Your task to perform on an android device: delete browsing data in the chrome app Image 0: 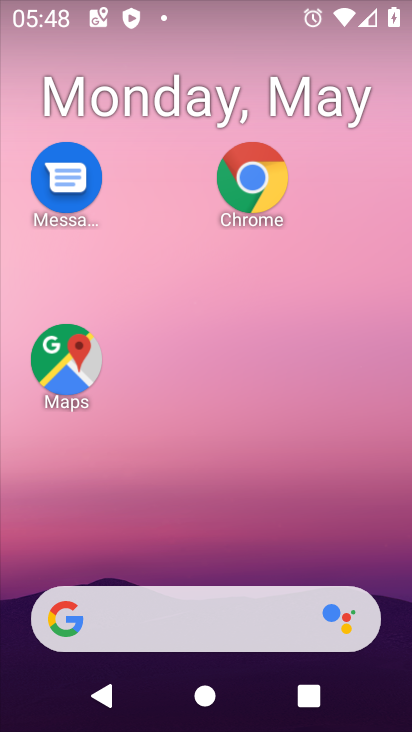
Step 0: drag from (195, 537) to (137, 29)
Your task to perform on an android device: delete browsing data in the chrome app Image 1: 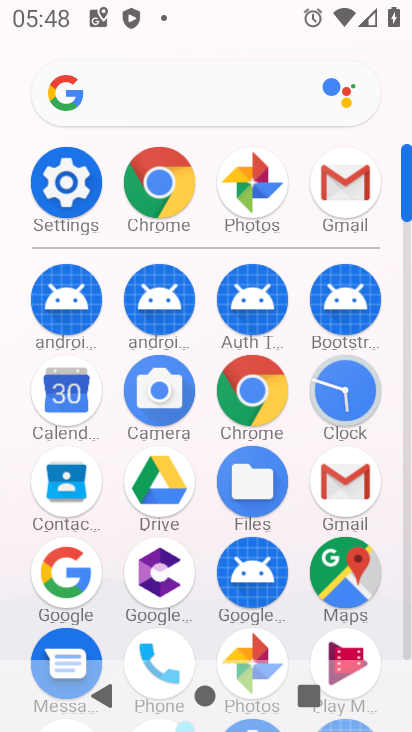
Step 1: click (156, 182)
Your task to perform on an android device: delete browsing data in the chrome app Image 2: 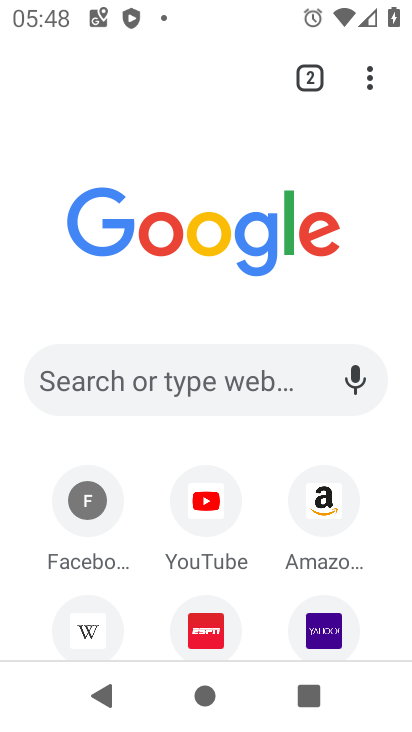
Step 2: click (366, 78)
Your task to perform on an android device: delete browsing data in the chrome app Image 3: 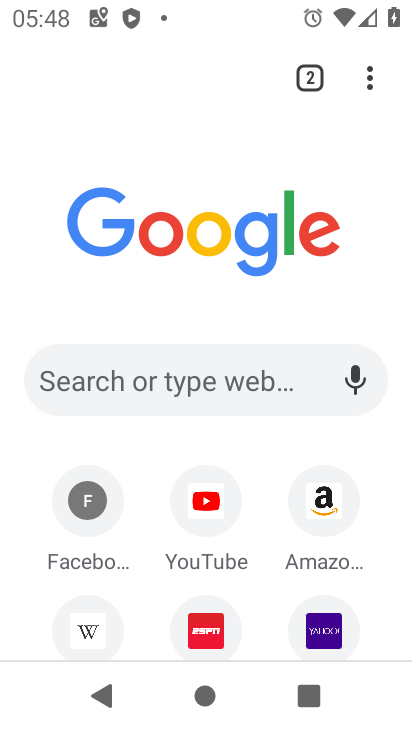
Step 3: click (366, 81)
Your task to perform on an android device: delete browsing data in the chrome app Image 4: 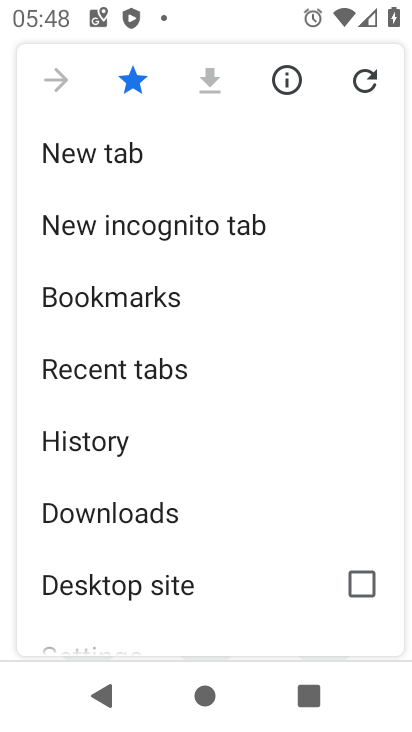
Step 4: click (114, 450)
Your task to perform on an android device: delete browsing data in the chrome app Image 5: 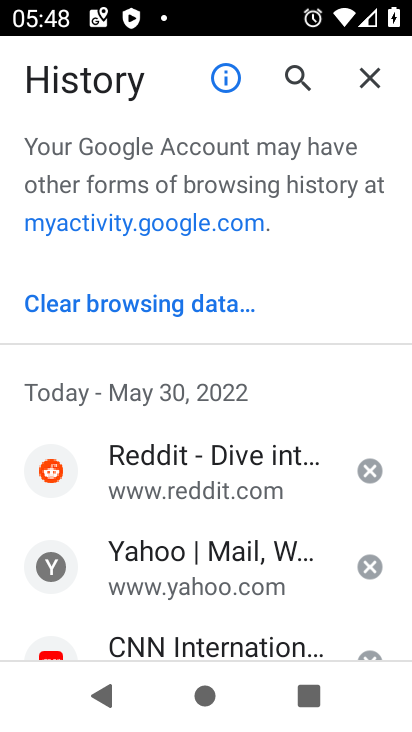
Step 5: click (99, 304)
Your task to perform on an android device: delete browsing data in the chrome app Image 6: 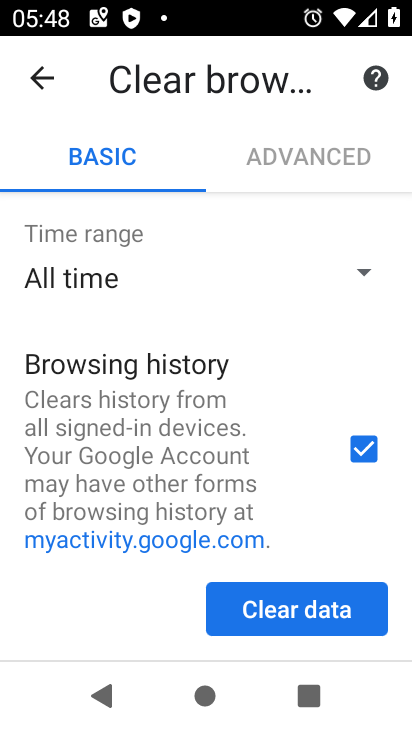
Step 6: drag from (286, 506) to (221, 224)
Your task to perform on an android device: delete browsing data in the chrome app Image 7: 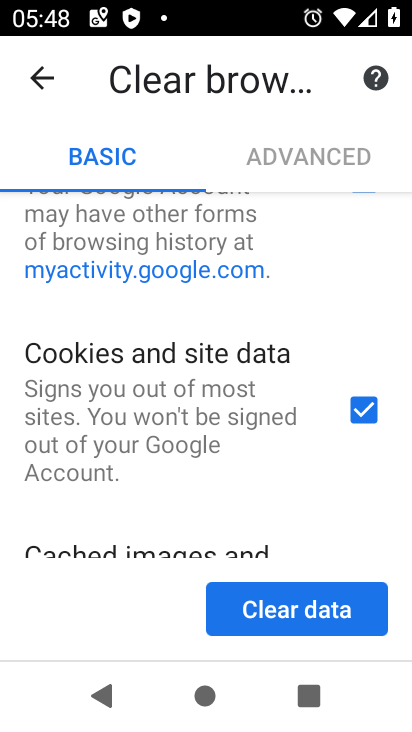
Step 7: drag from (275, 507) to (250, 278)
Your task to perform on an android device: delete browsing data in the chrome app Image 8: 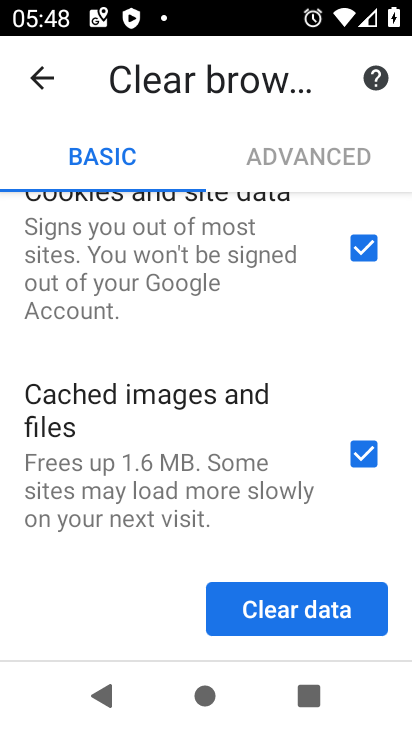
Step 8: click (327, 617)
Your task to perform on an android device: delete browsing data in the chrome app Image 9: 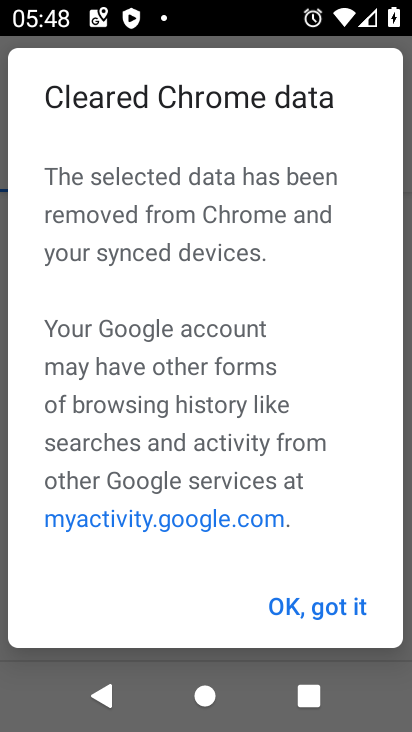
Step 9: click (324, 600)
Your task to perform on an android device: delete browsing data in the chrome app Image 10: 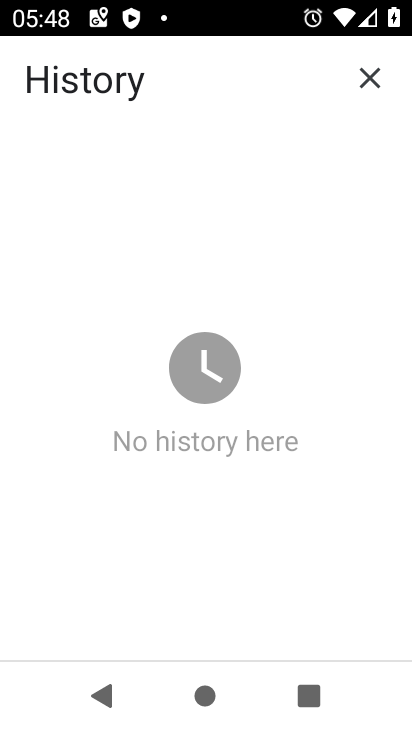
Step 10: task complete